Your task to perform on an android device: Go to sound settings Image 0: 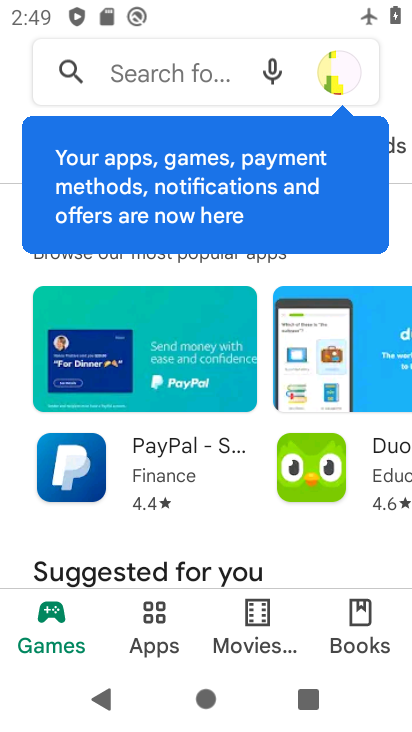
Step 0: press home button
Your task to perform on an android device: Go to sound settings Image 1: 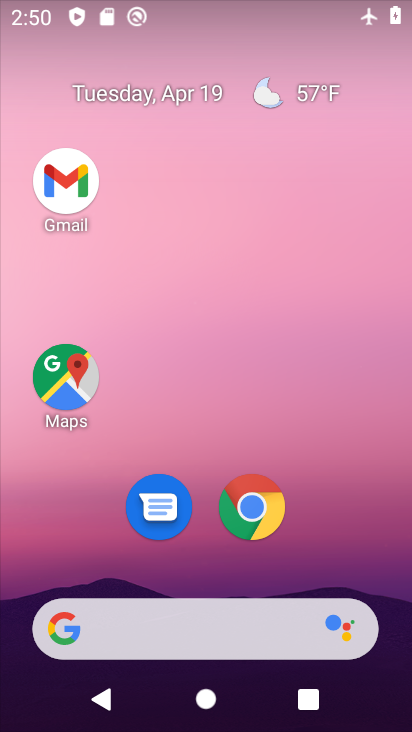
Step 1: drag from (256, 578) to (270, 125)
Your task to perform on an android device: Go to sound settings Image 2: 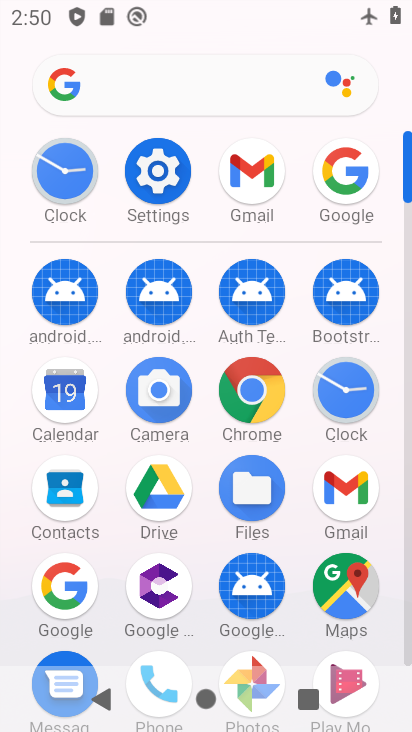
Step 2: click (161, 172)
Your task to perform on an android device: Go to sound settings Image 3: 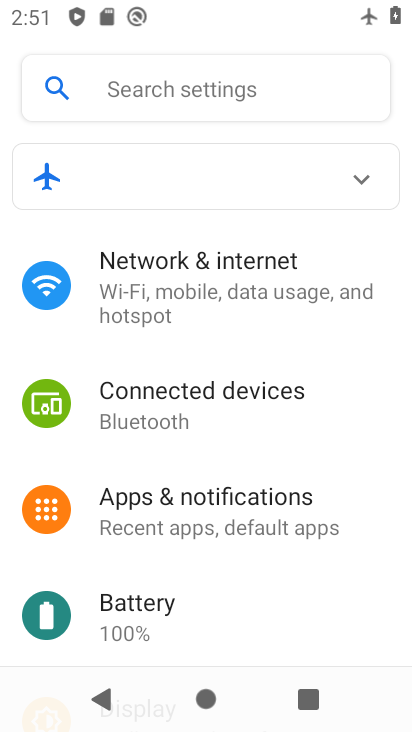
Step 3: drag from (244, 584) to (295, 175)
Your task to perform on an android device: Go to sound settings Image 4: 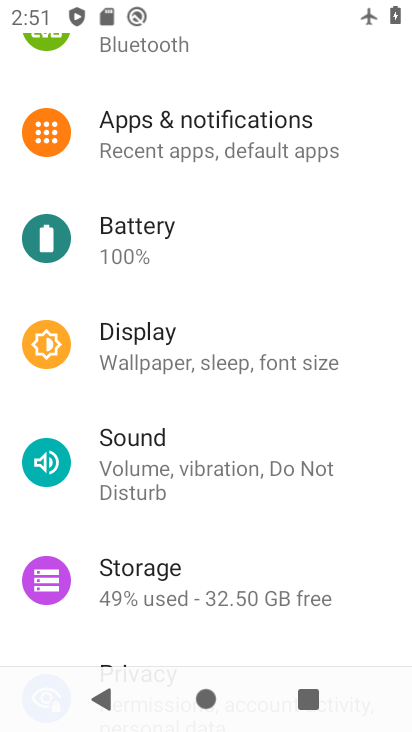
Step 4: drag from (263, 529) to (252, 318)
Your task to perform on an android device: Go to sound settings Image 5: 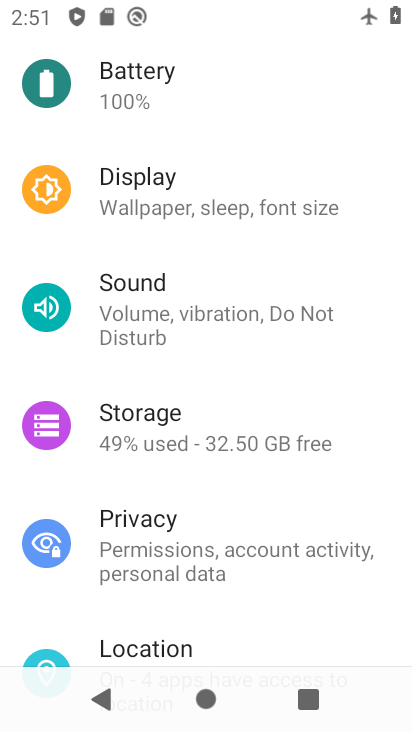
Step 5: click (252, 318)
Your task to perform on an android device: Go to sound settings Image 6: 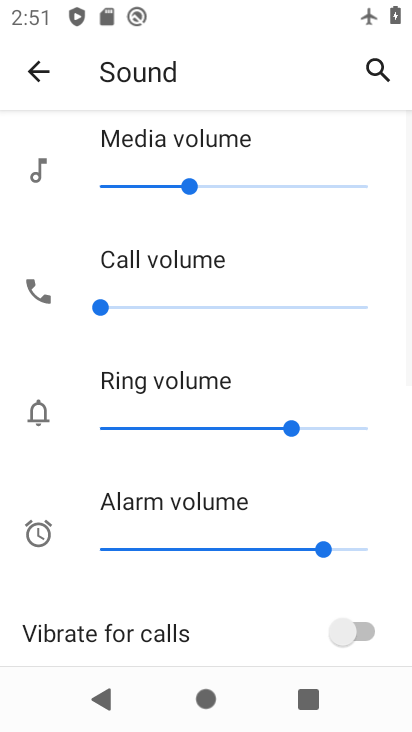
Step 6: task complete